Your task to perform on an android device: Open display settings Image 0: 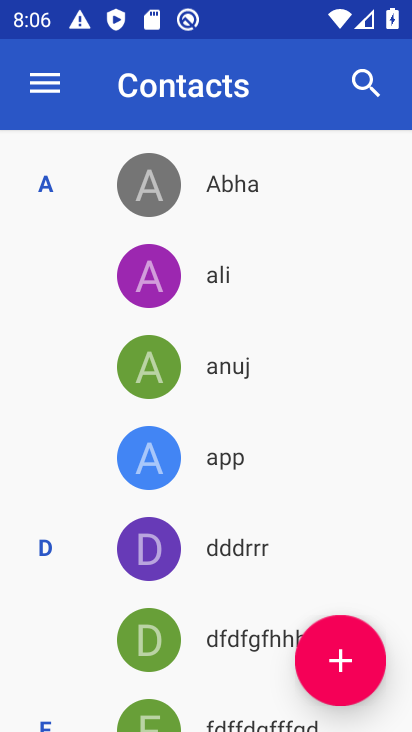
Step 0: press home button
Your task to perform on an android device: Open display settings Image 1: 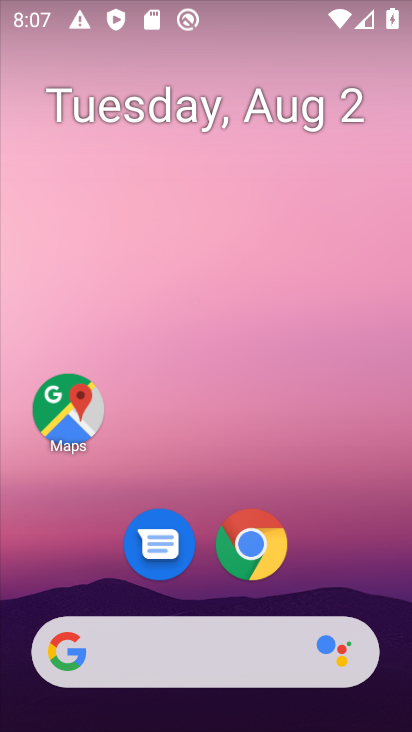
Step 1: drag from (189, 609) to (174, 319)
Your task to perform on an android device: Open display settings Image 2: 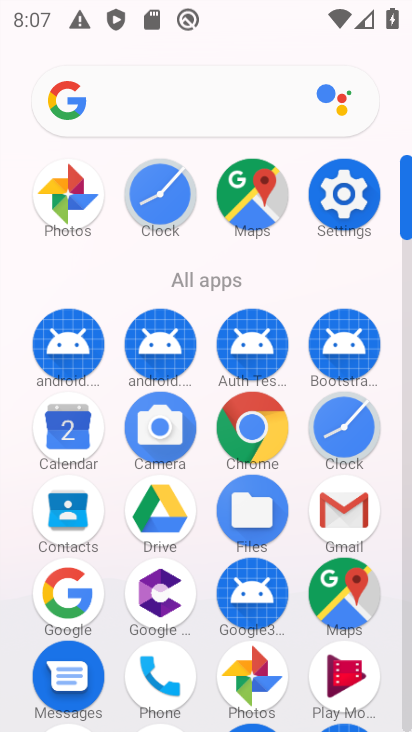
Step 2: click (355, 194)
Your task to perform on an android device: Open display settings Image 3: 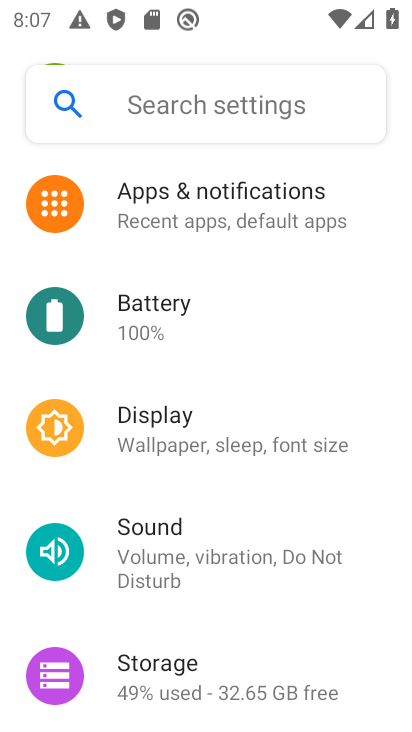
Step 3: click (160, 410)
Your task to perform on an android device: Open display settings Image 4: 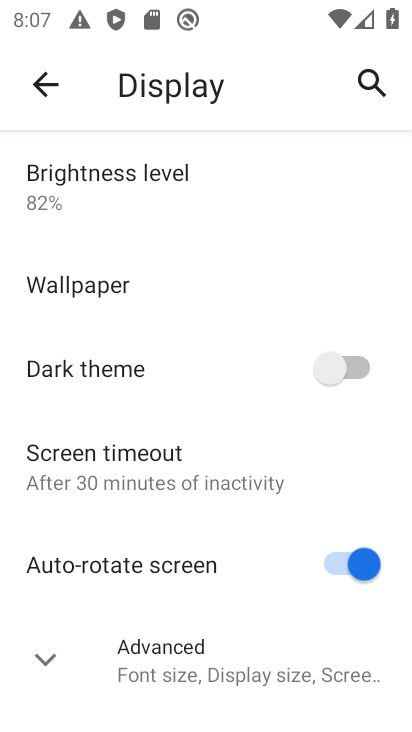
Step 4: click (43, 658)
Your task to perform on an android device: Open display settings Image 5: 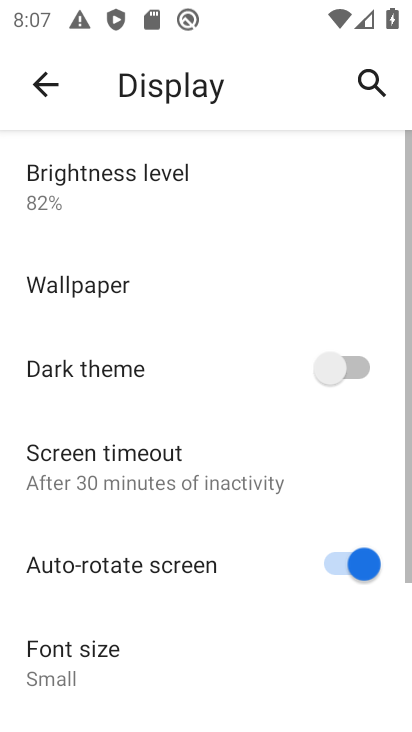
Step 5: task complete